Your task to perform on an android device: change the clock display to digital Image 0: 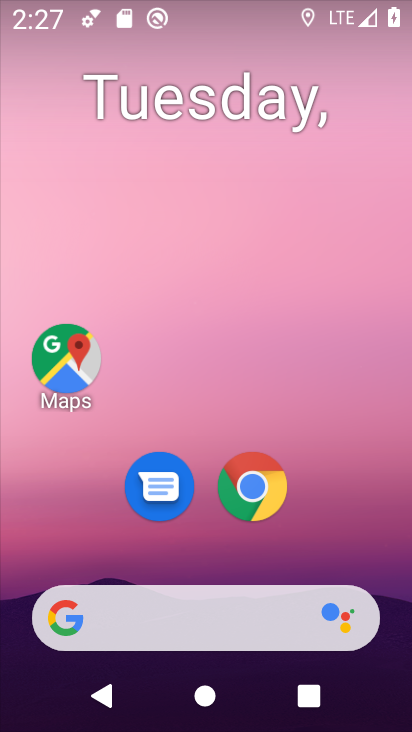
Step 0: press home button
Your task to perform on an android device: change the clock display to digital Image 1: 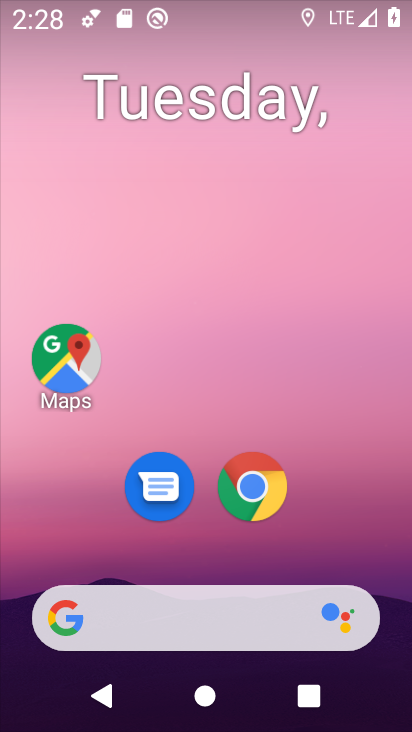
Step 1: drag from (350, 551) to (338, 143)
Your task to perform on an android device: change the clock display to digital Image 2: 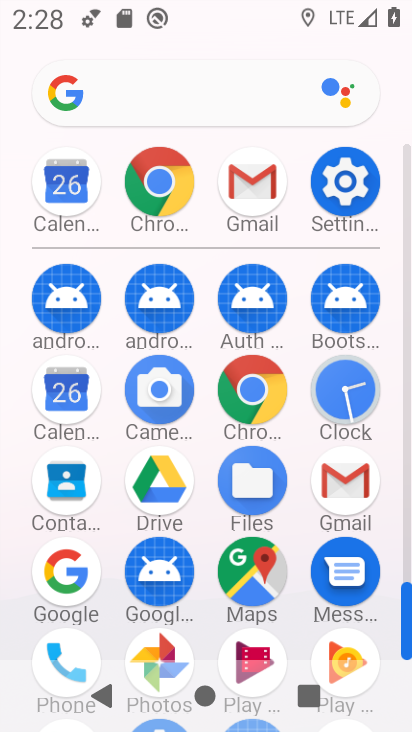
Step 2: click (343, 397)
Your task to perform on an android device: change the clock display to digital Image 3: 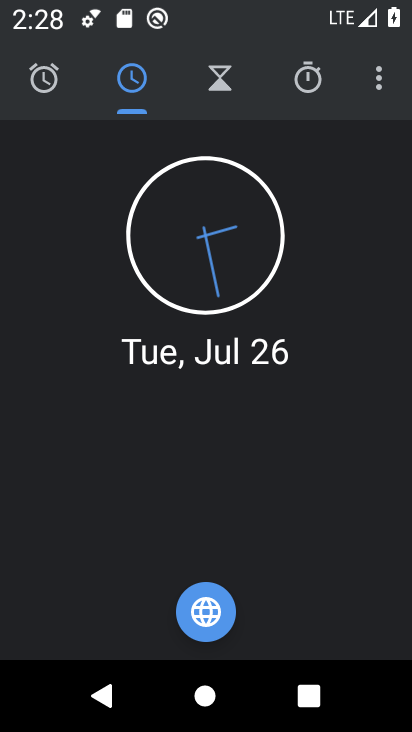
Step 3: click (382, 93)
Your task to perform on an android device: change the clock display to digital Image 4: 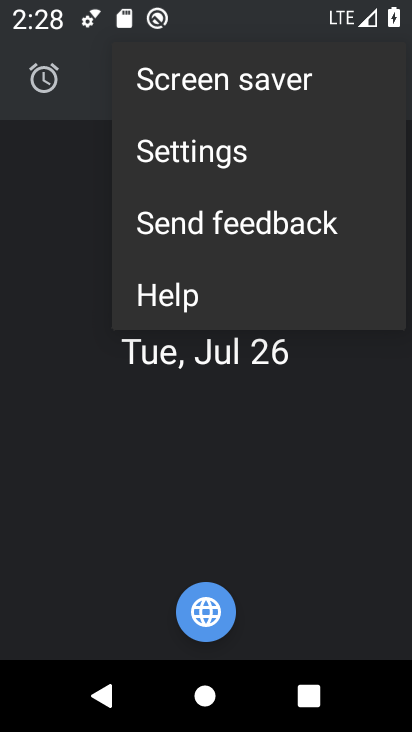
Step 4: click (269, 145)
Your task to perform on an android device: change the clock display to digital Image 5: 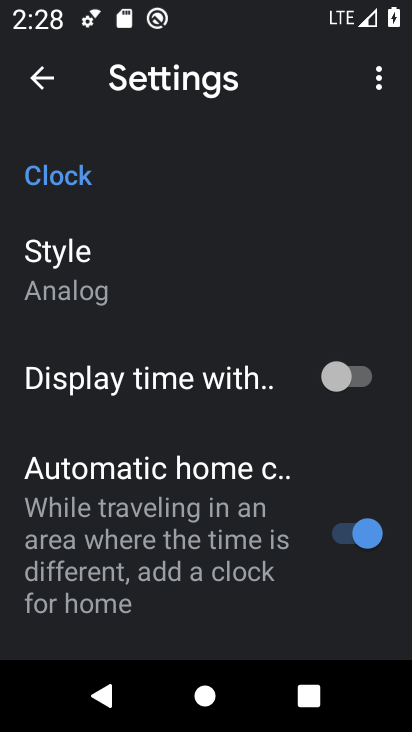
Step 5: drag from (267, 432) to (271, 365)
Your task to perform on an android device: change the clock display to digital Image 6: 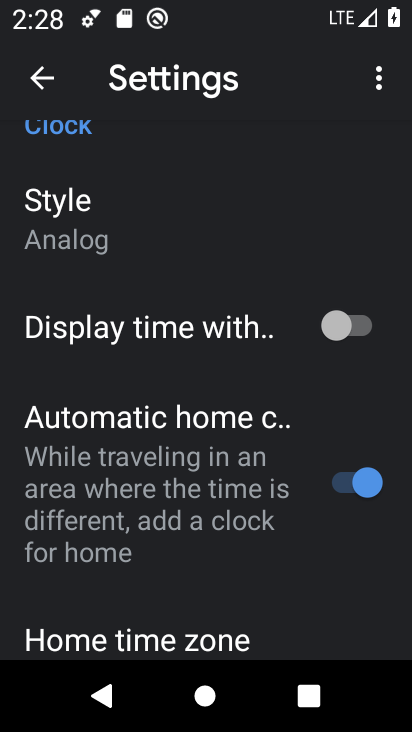
Step 6: drag from (272, 487) to (273, 388)
Your task to perform on an android device: change the clock display to digital Image 7: 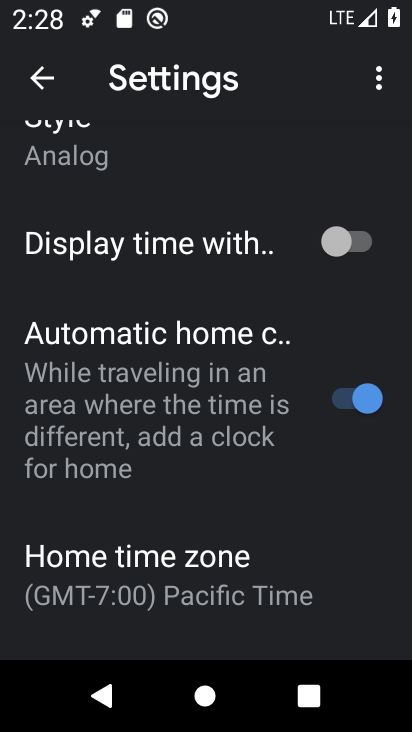
Step 7: drag from (273, 510) to (274, 428)
Your task to perform on an android device: change the clock display to digital Image 8: 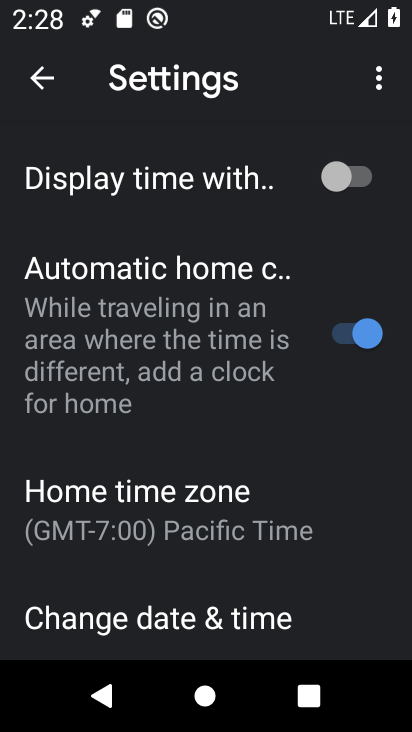
Step 8: drag from (266, 537) to (277, 451)
Your task to perform on an android device: change the clock display to digital Image 9: 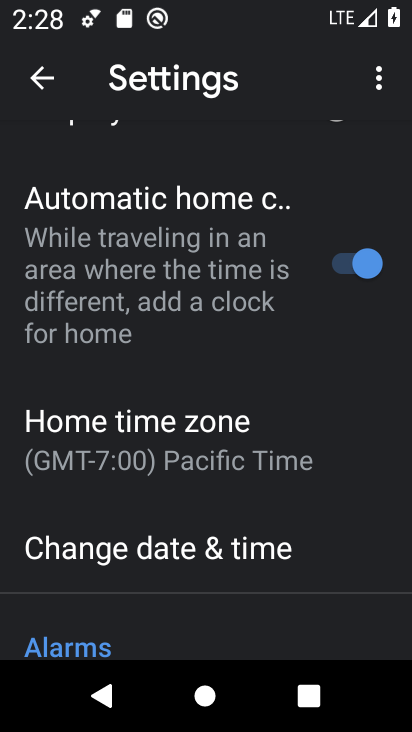
Step 9: drag from (280, 563) to (287, 462)
Your task to perform on an android device: change the clock display to digital Image 10: 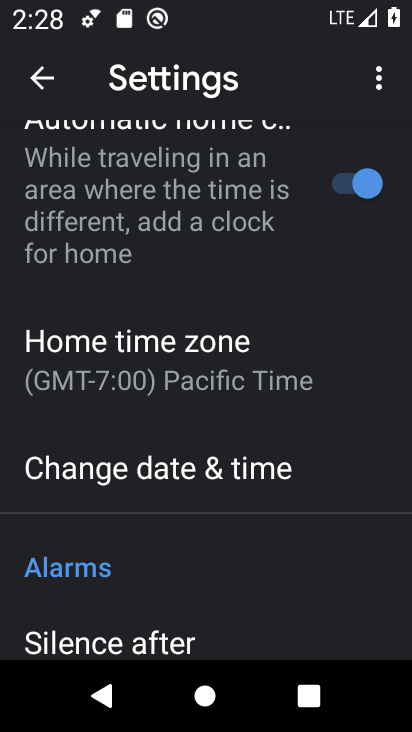
Step 10: drag from (283, 548) to (290, 443)
Your task to perform on an android device: change the clock display to digital Image 11: 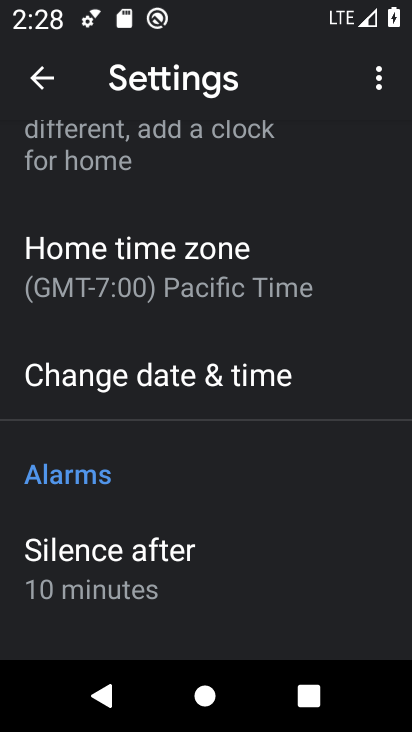
Step 11: drag from (284, 518) to (299, 383)
Your task to perform on an android device: change the clock display to digital Image 12: 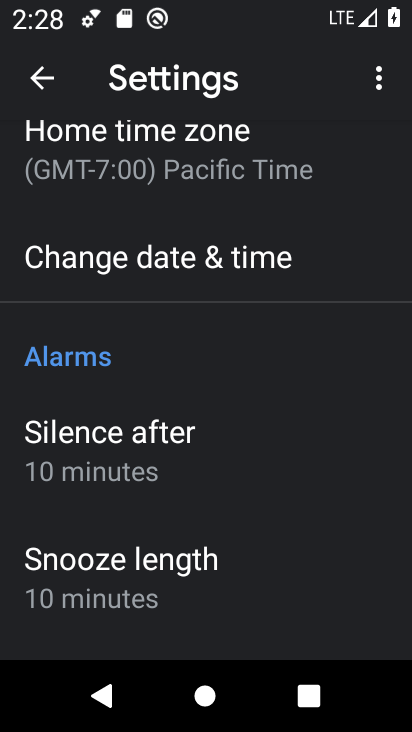
Step 12: drag from (299, 449) to (307, 362)
Your task to perform on an android device: change the clock display to digital Image 13: 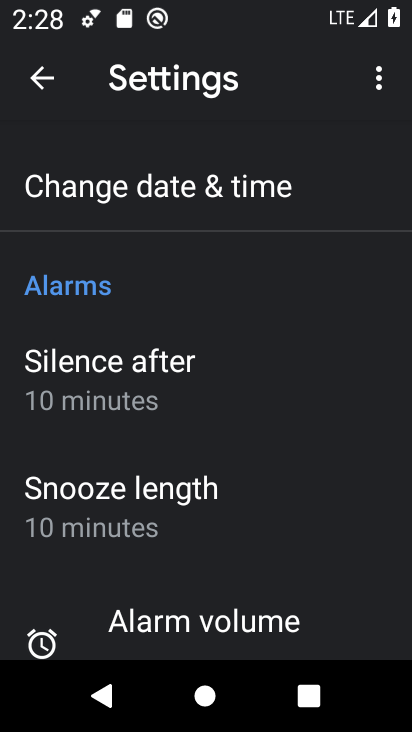
Step 13: drag from (311, 226) to (316, 381)
Your task to perform on an android device: change the clock display to digital Image 14: 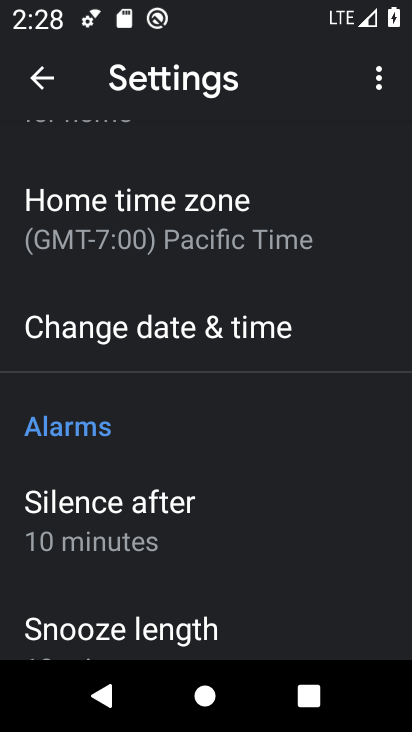
Step 14: drag from (333, 219) to (332, 342)
Your task to perform on an android device: change the clock display to digital Image 15: 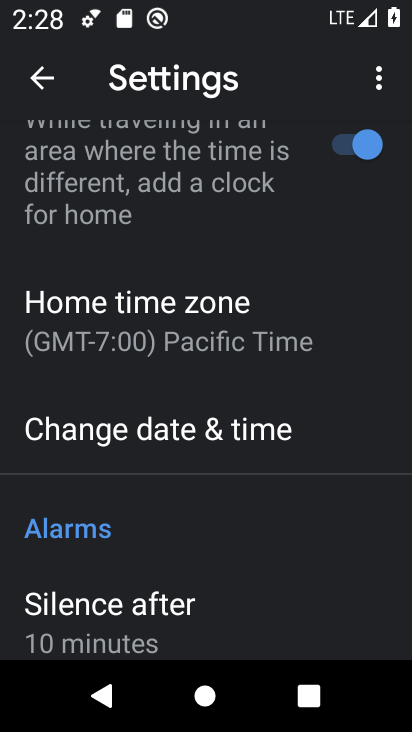
Step 15: drag from (331, 214) to (327, 326)
Your task to perform on an android device: change the clock display to digital Image 16: 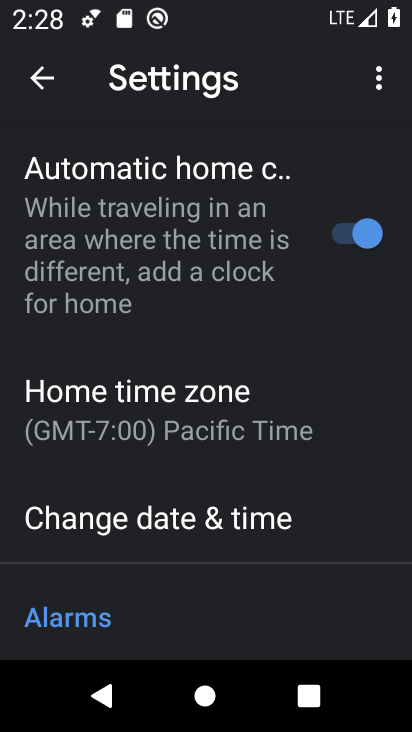
Step 16: drag from (295, 150) to (295, 273)
Your task to perform on an android device: change the clock display to digital Image 17: 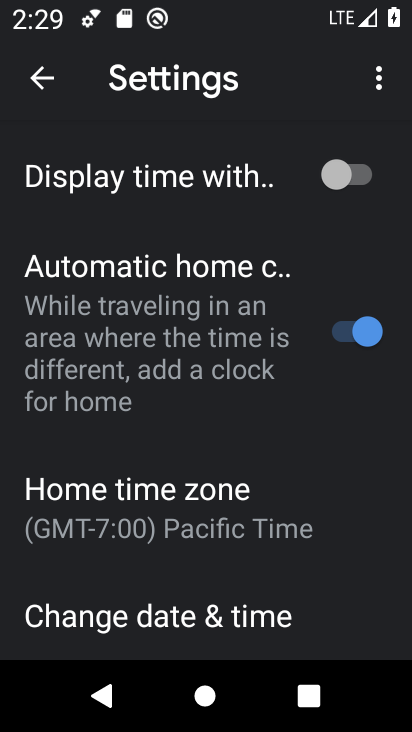
Step 17: drag from (283, 176) to (282, 289)
Your task to perform on an android device: change the clock display to digital Image 18: 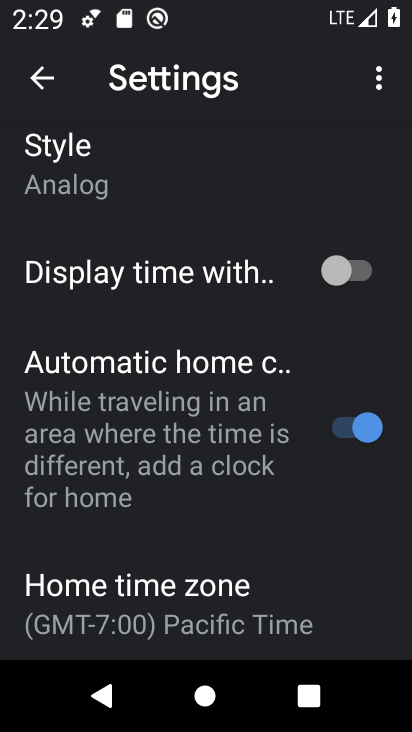
Step 18: drag from (272, 189) to (273, 295)
Your task to perform on an android device: change the clock display to digital Image 19: 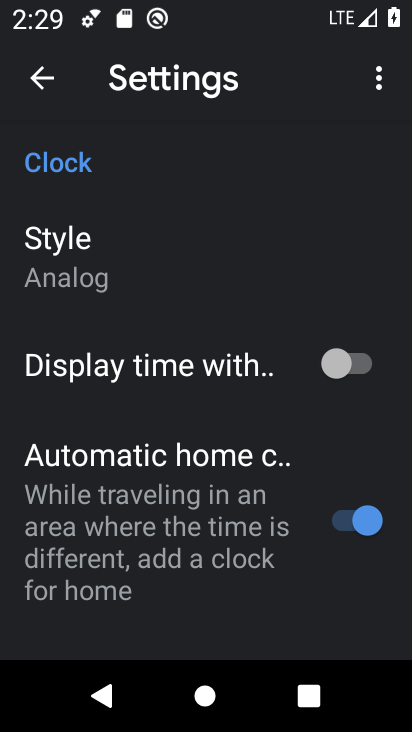
Step 19: click (111, 286)
Your task to perform on an android device: change the clock display to digital Image 20: 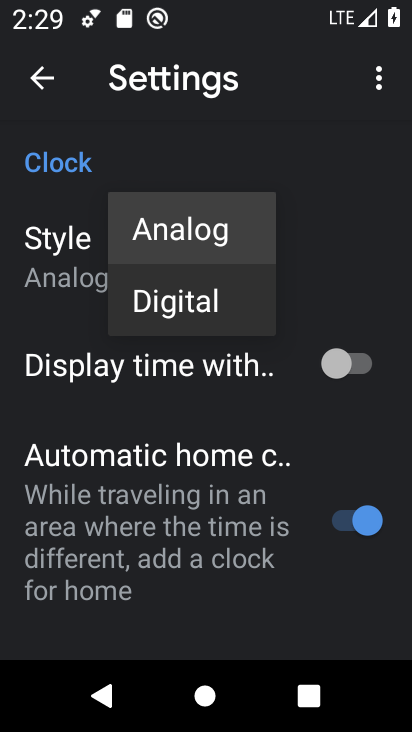
Step 20: click (151, 303)
Your task to perform on an android device: change the clock display to digital Image 21: 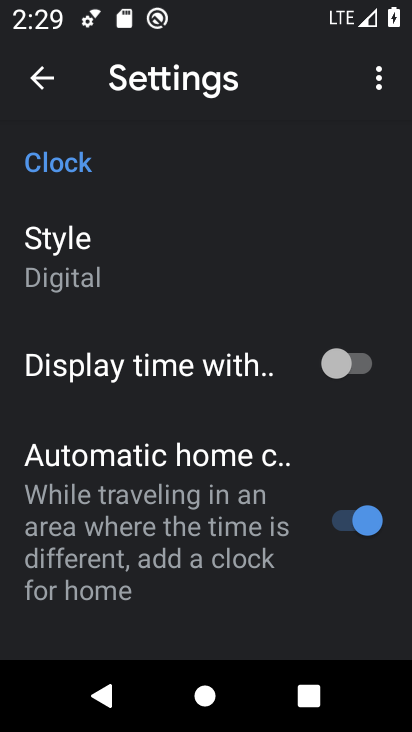
Step 21: task complete